Your task to perform on an android device: Open the web browser Image 0: 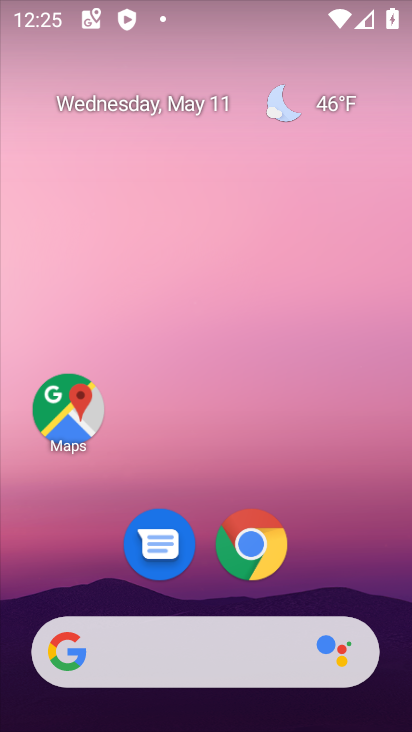
Step 0: click (251, 540)
Your task to perform on an android device: Open the web browser Image 1: 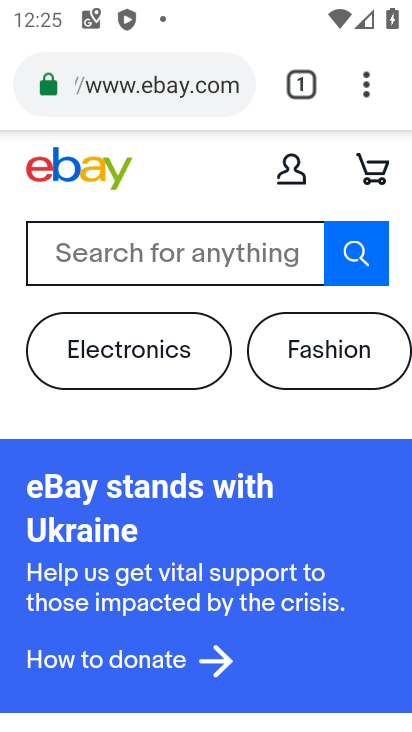
Step 1: task complete